Your task to perform on an android device: set default search engine in the chrome app Image 0: 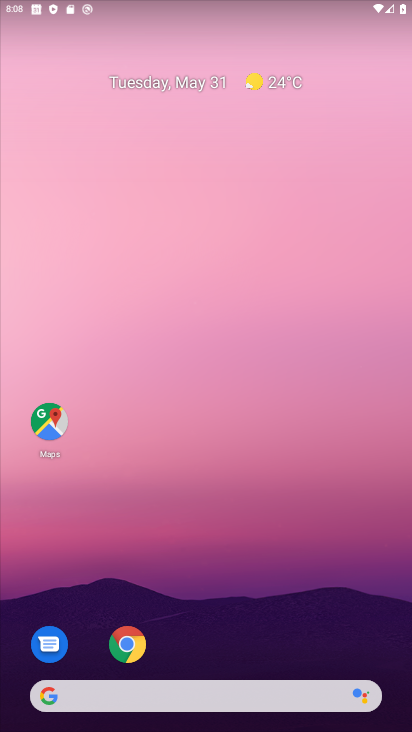
Step 0: click (116, 647)
Your task to perform on an android device: set default search engine in the chrome app Image 1: 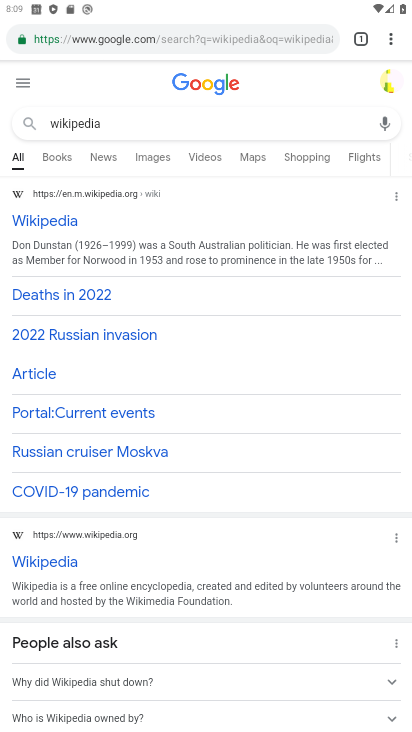
Step 1: click (388, 39)
Your task to perform on an android device: set default search engine in the chrome app Image 2: 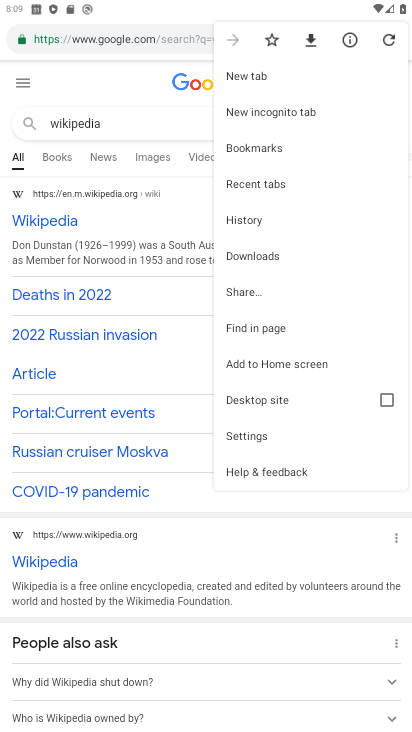
Step 2: click (253, 433)
Your task to perform on an android device: set default search engine in the chrome app Image 3: 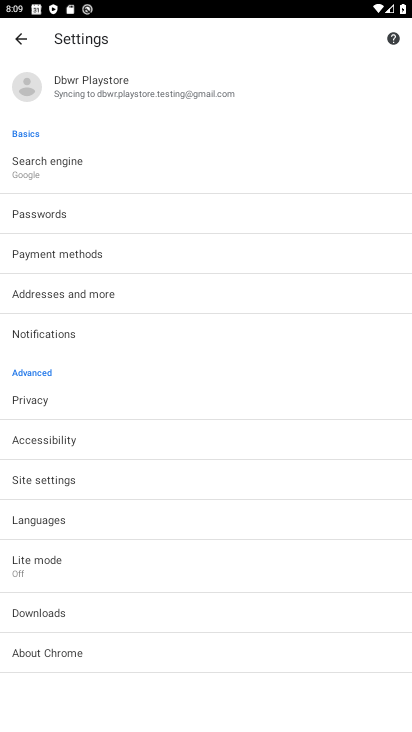
Step 3: click (44, 160)
Your task to perform on an android device: set default search engine in the chrome app Image 4: 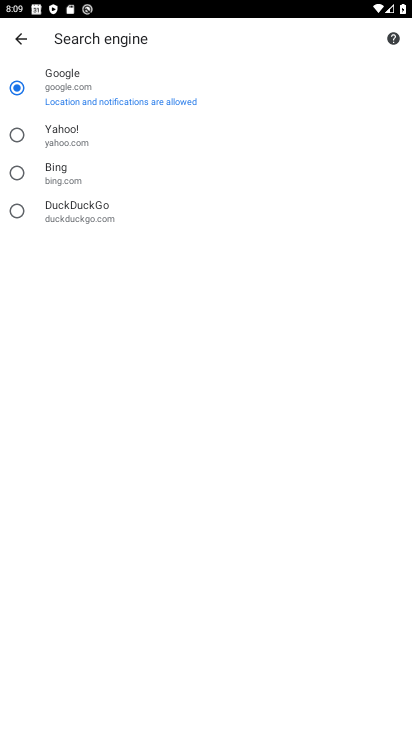
Step 4: task complete